Your task to perform on an android device: What's a good restaurant in Boston? Image 0: 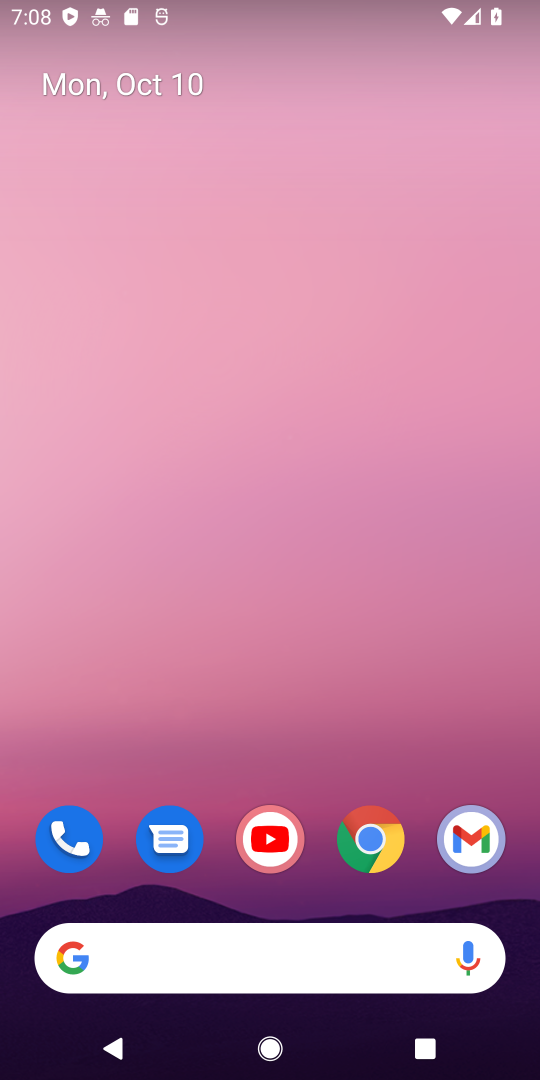
Step 0: click (262, 947)
Your task to perform on an android device: What's a good restaurant in Boston? Image 1: 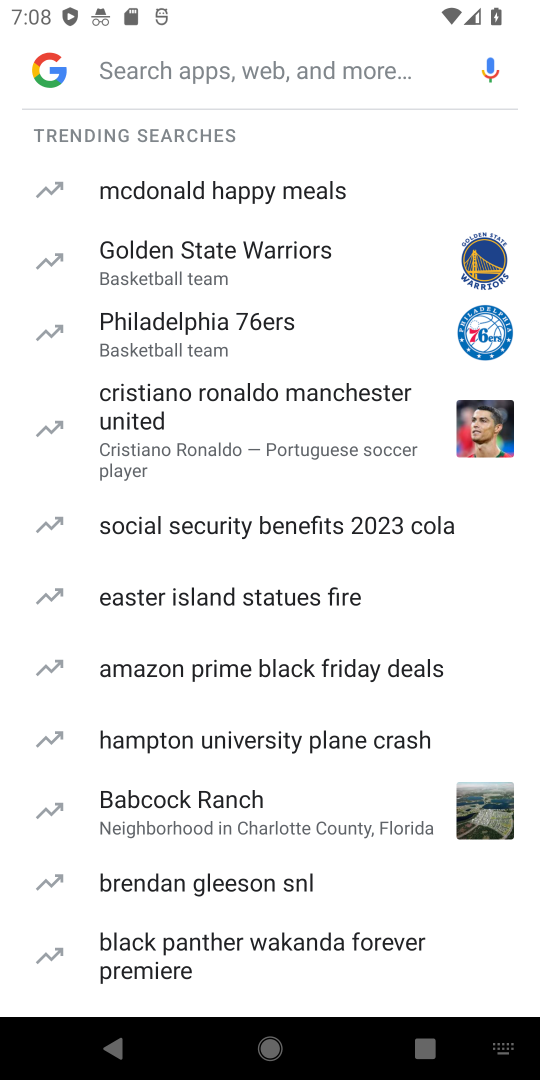
Step 1: type "What's a good restaurant in Boston?"
Your task to perform on an android device: What's a good restaurant in Boston? Image 2: 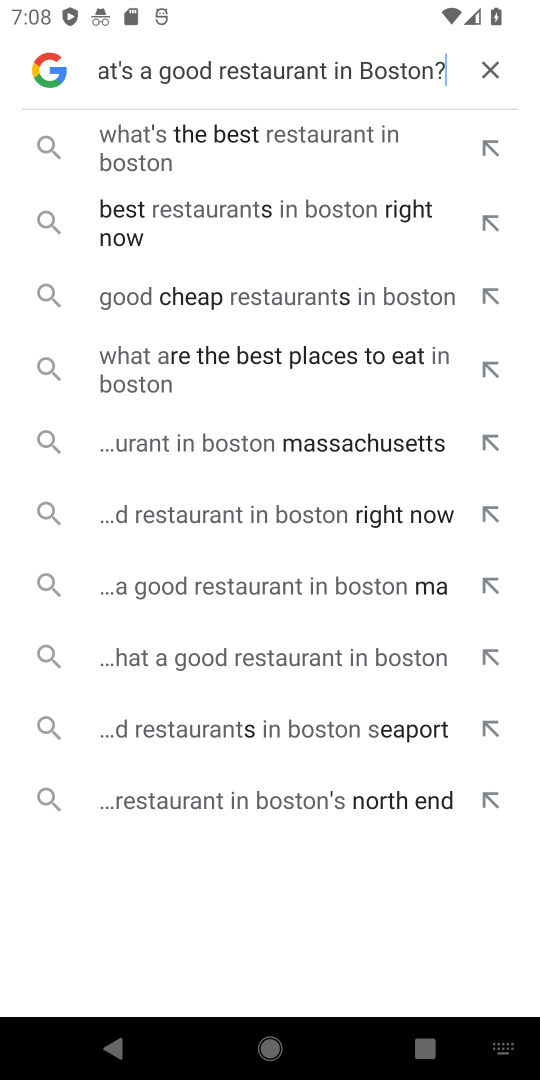
Step 2: click (189, 143)
Your task to perform on an android device: What's a good restaurant in Boston? Image 3: 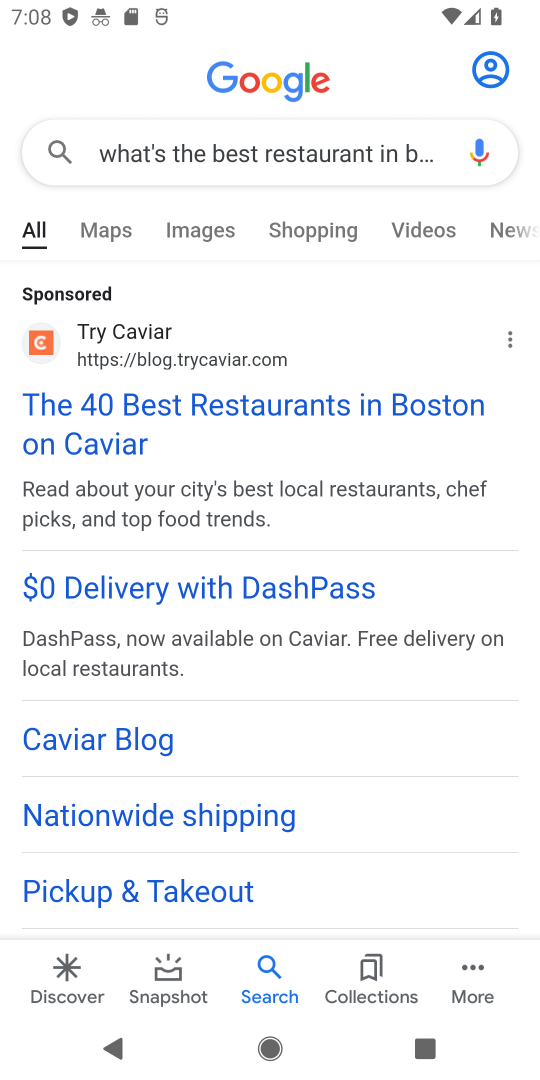
Step 3: click (240, 398)
Your task to perform on an android device: What's a good restaurant in Boston? Image 4: 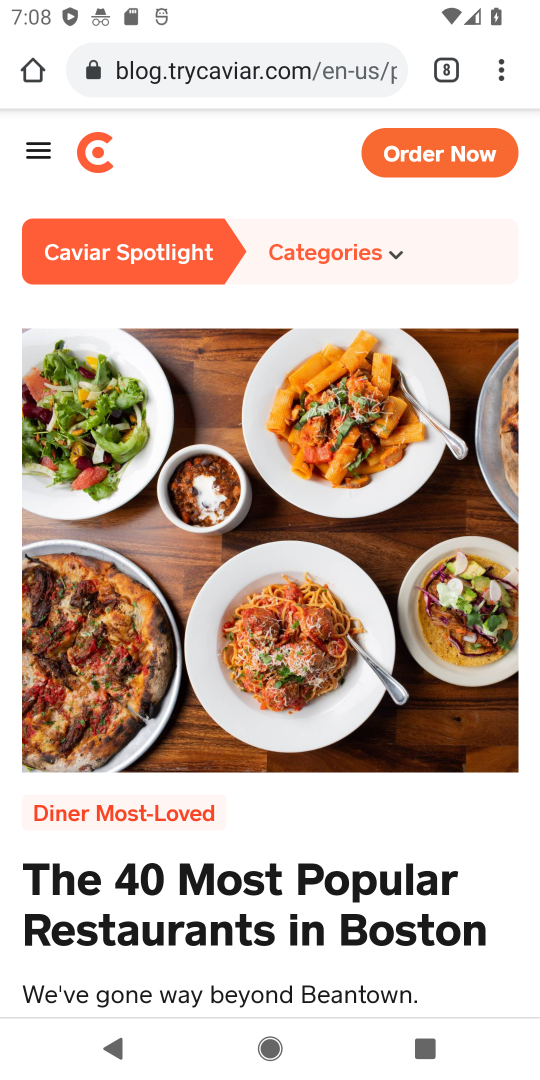
Step 4: task complete